Your task to perform on an android device: clear all cookies in the chrome app Image 0: 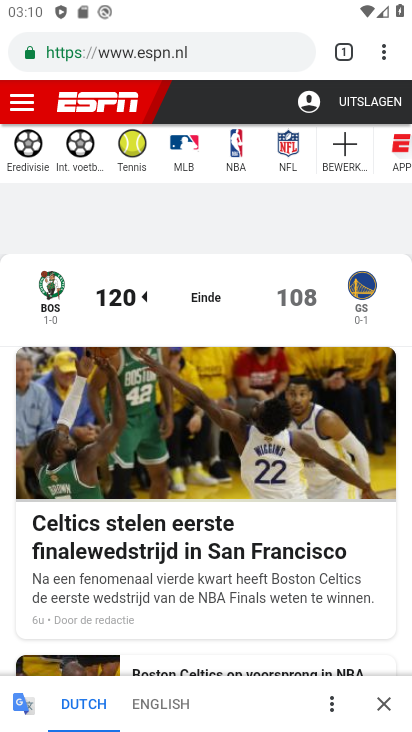
Step 0: click (386, 62)
Your task to perform on an android device: clear all cookies in the chrome app Image 1: 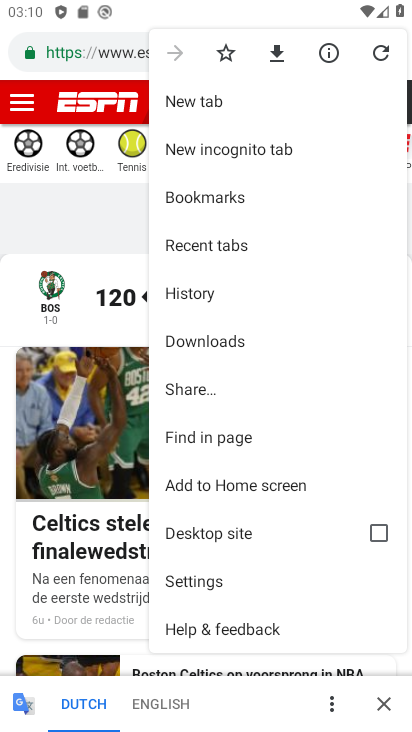
Step 1: click (200, 300)
Your task to perform on an android device: clear all cookies in the chrome app Image 2: 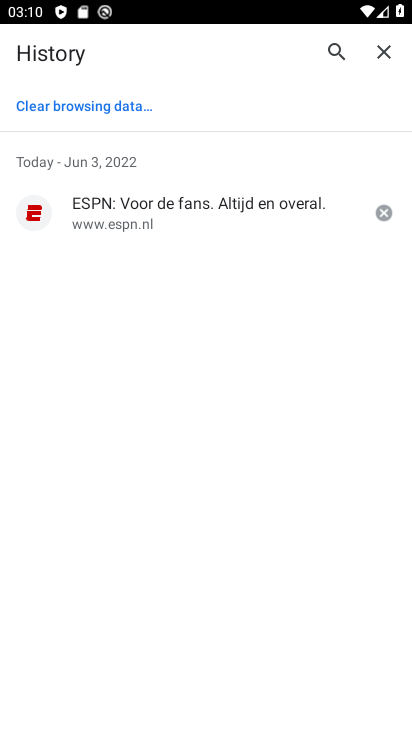
Step 2: click (81, 103)
Your task to perform on an android device: clear all cookies in the chrome app Image 3: 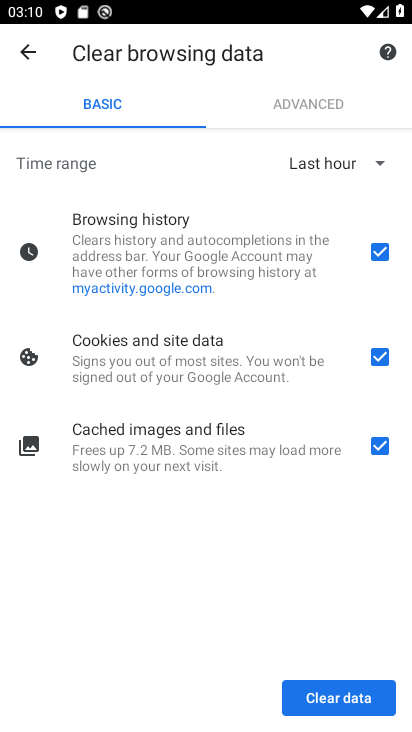
Step 3: click (392, 446)
Your task to perform on an android device: clear all cookies in the chrome app Image 4: 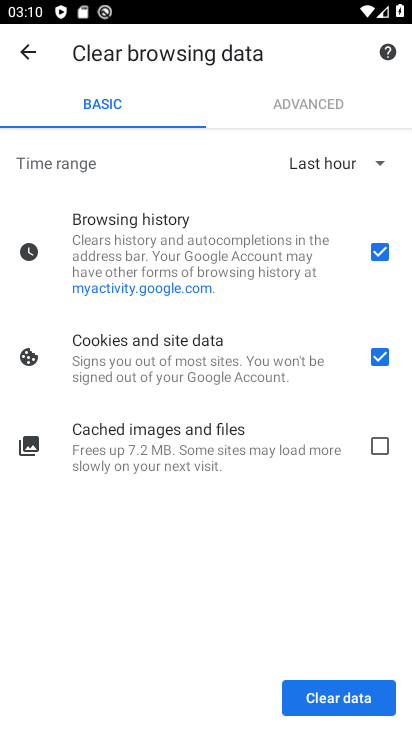
Step 4: click (376, 262)
Your task to perform on an android device: clear all cookies in the chrome app Image 5: 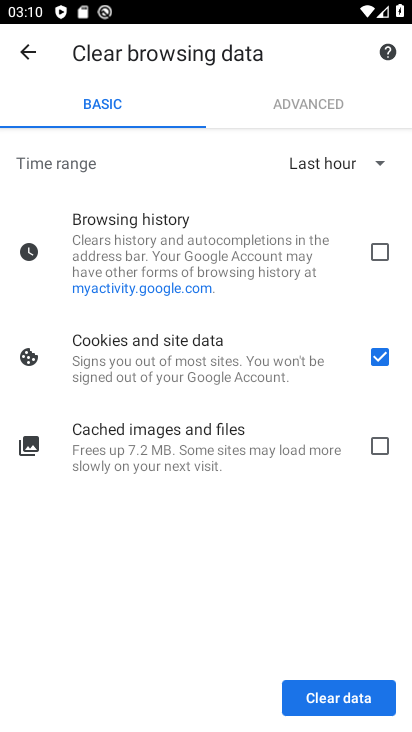
Step 5: click (339, 704)
Your task to perform on an android device: clear all cookies in the chrome app Image 6: 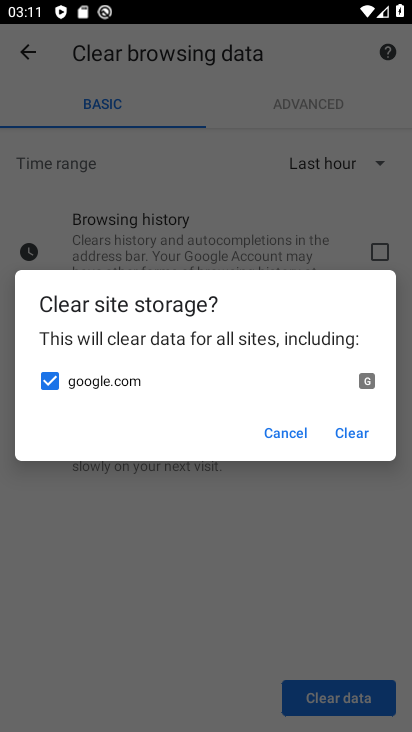
Step 6: click (350, 441)
Your task to perform on an android device: clear all cookies in the chrome app Image 7: 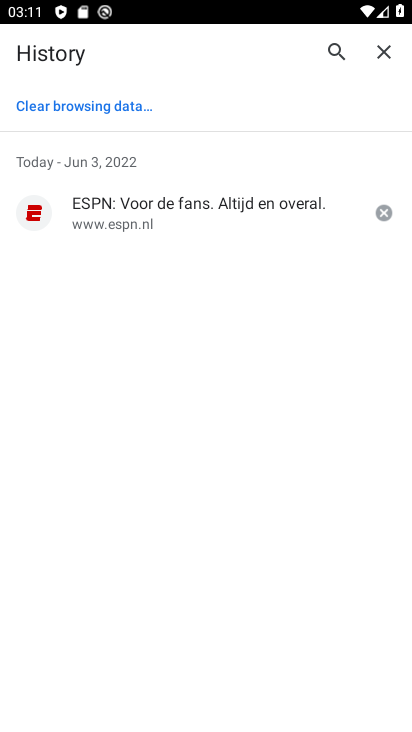
Step 7: task complete